Your task to perform on an android device: Go to Maps Image 0: 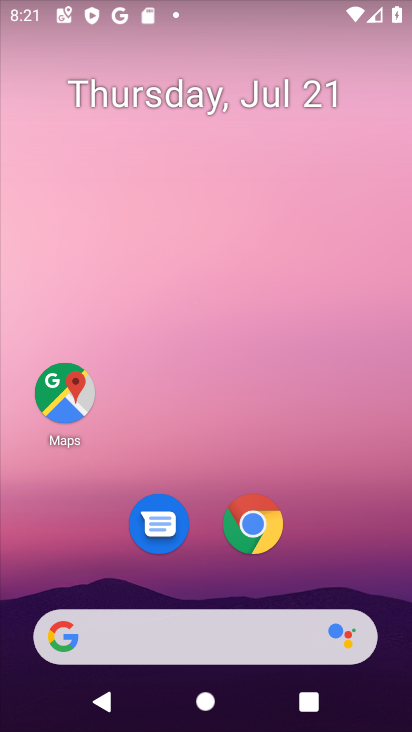
Step 0: click (68, 404)
Your task to perform on an android device: Go to Maps Image 1: 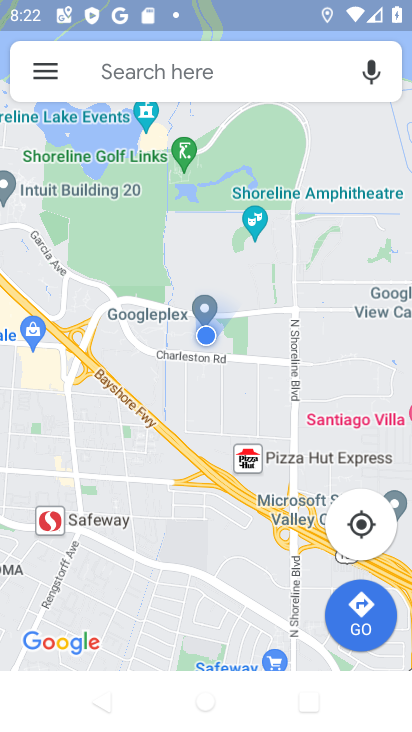
Step 1: task complete